Your task to perform on an android device: Where can I buy a nice beach tent? Image 0: 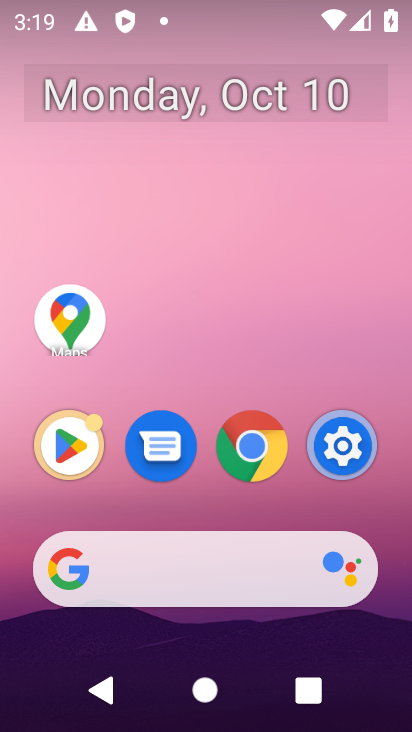
Step 0: click (160, 551)
Your task to perform on an android device: Where can I buy a nice beach tent? Image 1: 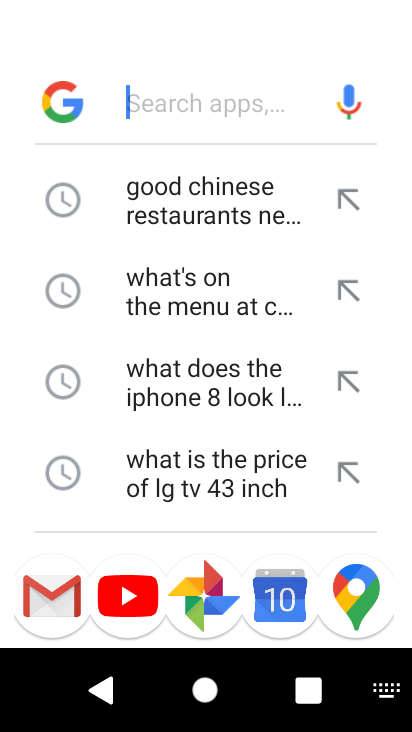
Step 1: type "buy a nice beach tent"
Your task to perform on an android device: Where can I buy a nice beach tent? Image 2: 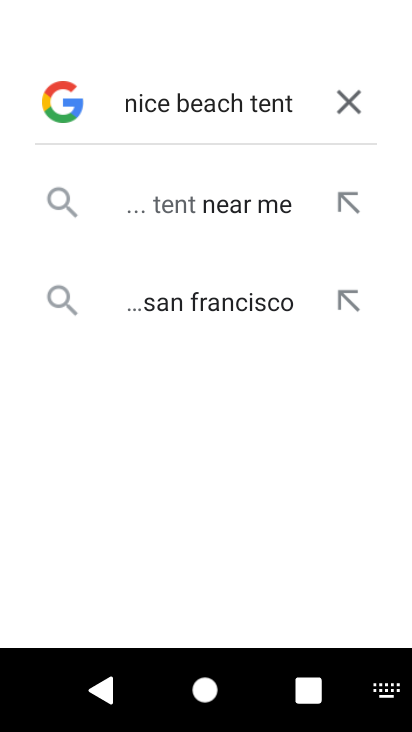
Step 2: type ""
Your task to perform on an android device: Where can I buy a nice beach tent? Image 3: 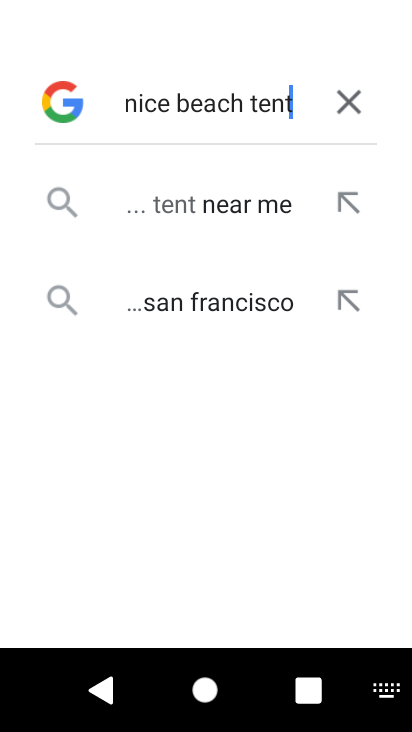
Step 3: click (252, 195)
Your task to perform on an android device: Where can I buy a nice beach tent? Image 4: 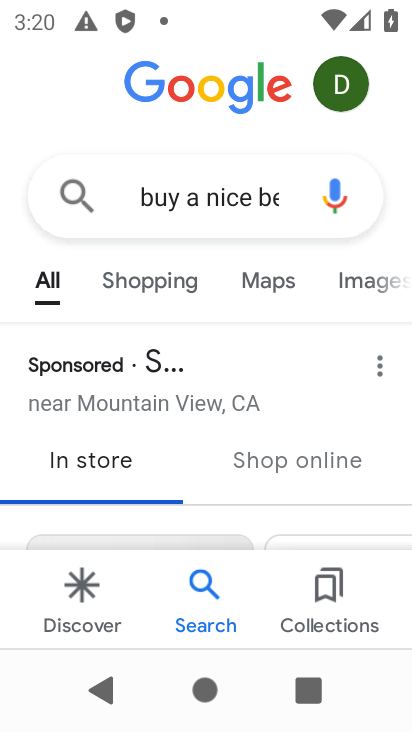
Step 4: task complete